Your task to perform on an android device: delete location history Image 0: 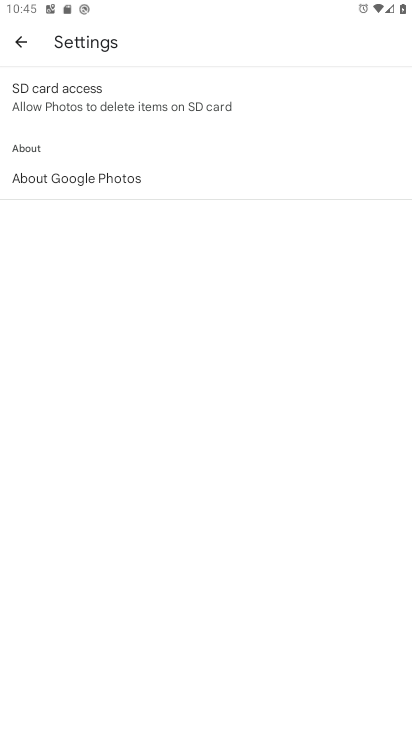
Step 0: task complete